Your task to perform on an android device: turn on notifications settings in the gmail app Image 0: 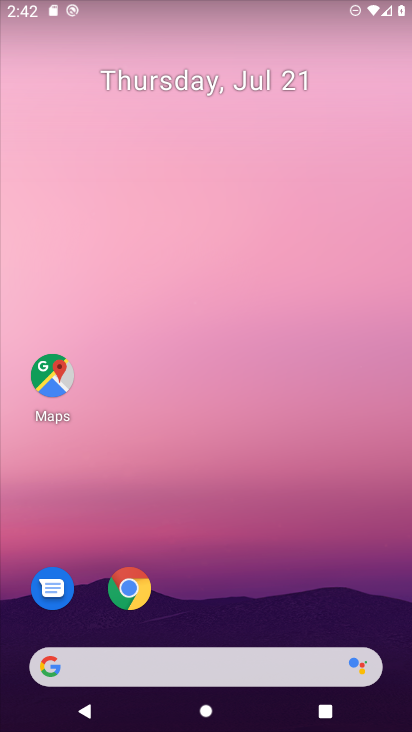
Step 0: drag from (205, 656) to (216, 111)
Your task to perform on an android device: turn on notifications settings in the gmail app Image 1: 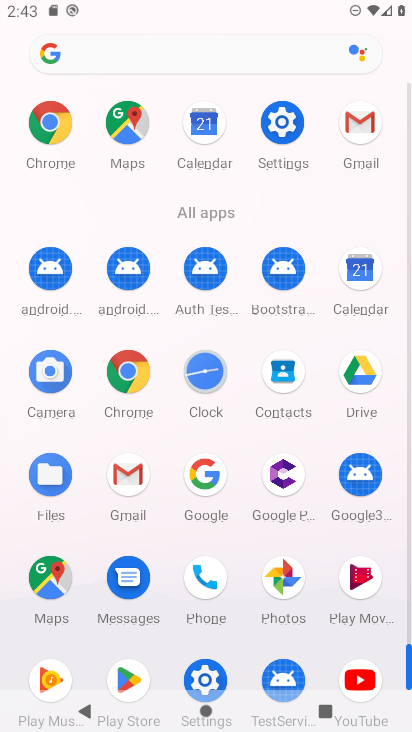
Step 1: click (379, 139)
Your task to perform on an android device: turn on notifications settings in the gmail app Image 2: 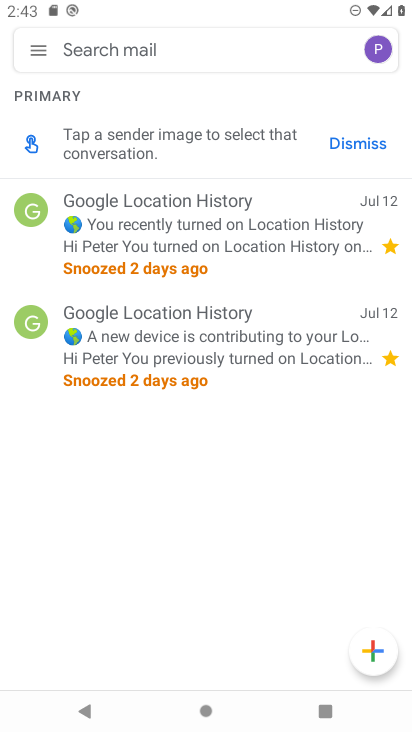
Step 2: click (32, 59)
Your task to perform on an android device: turn on notifications settings in the gmail app Image 3: 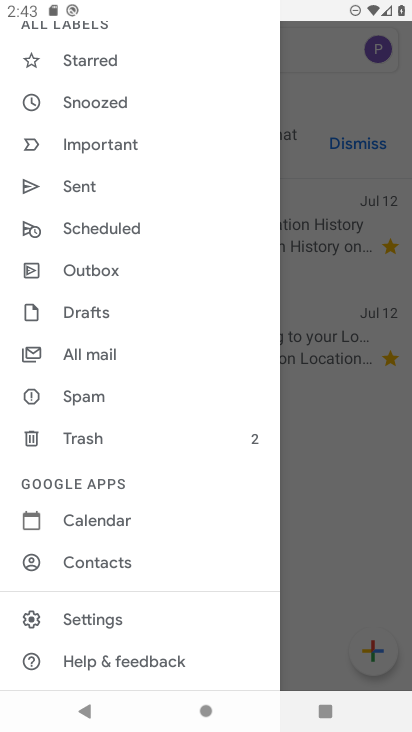
Step 3: click (98, 617)
Your task to perform on an android device: turn on notifications settings in the gmail app Image 4: 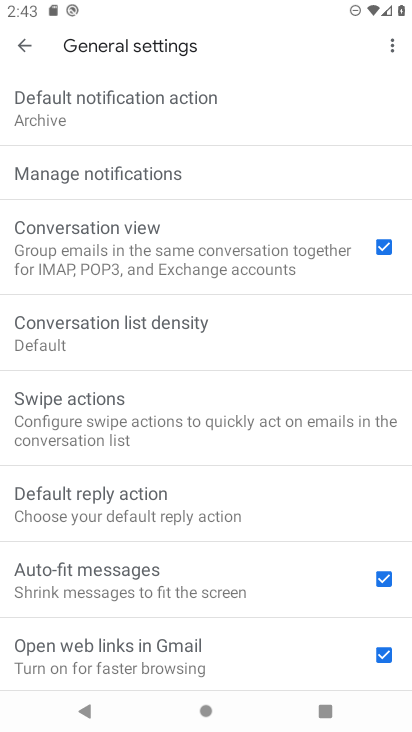
Step 4: click (127, 165)
Your task to perform on an android device: turn on notifications settings in the gmail app Image 5: 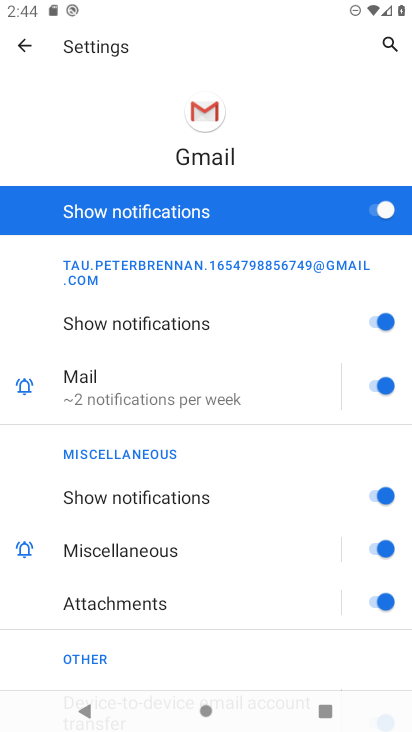
Step 5: task complete